Your task to perform on an android device: Open Google Image 0: 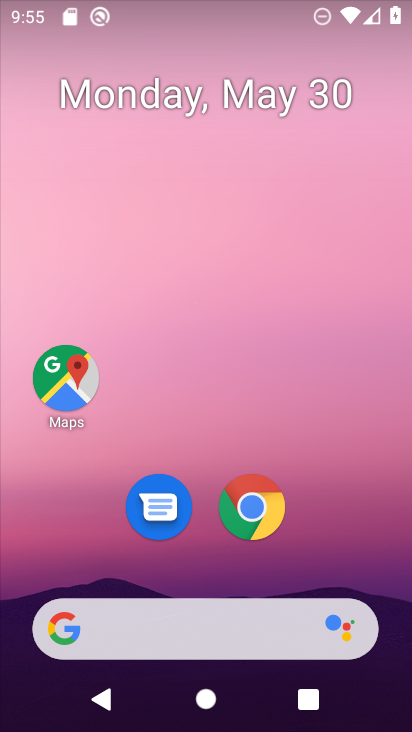
Step 0: drag from (170, 716) to (115, 129)
Your task to perform on an android device: Open Google Image 1: 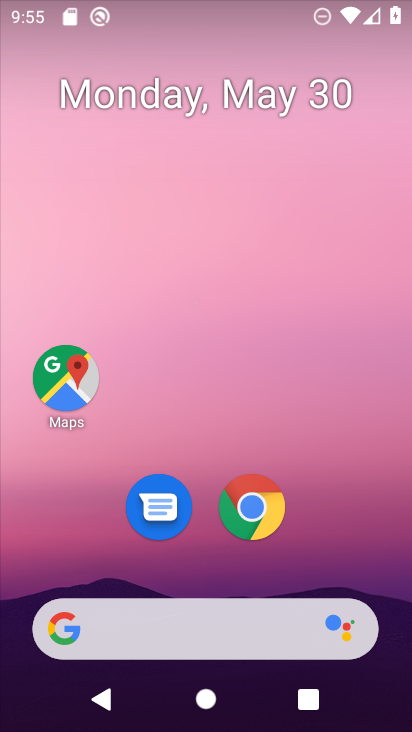
Step 1: drag from (143, 704) to (170, 48)
Your task to perform on an android device: Open Google Image 2: 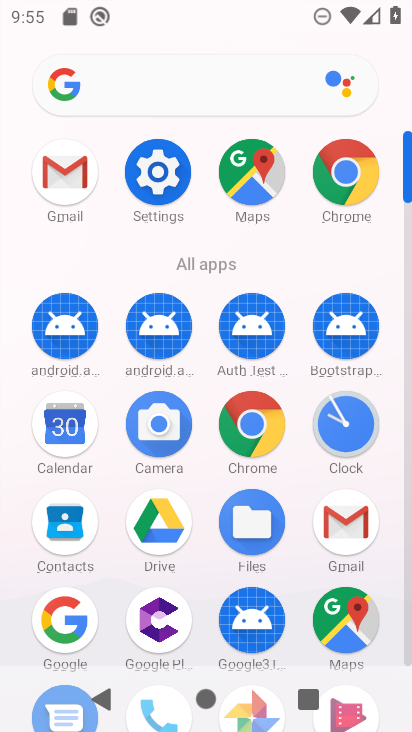
Step 2: click (57, 624)
Your task to perform on an android device: Open Google Image 3: 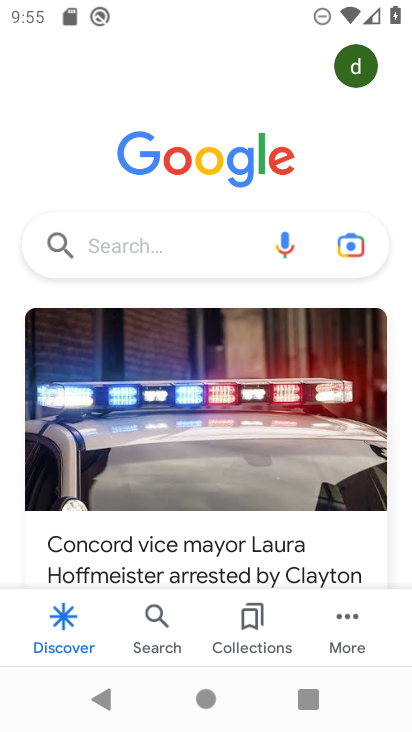
Step 3: task complete